Your task to perform on an android device: Empty the shopping cart on costco.com. Add logitech g502 to the cart on costco.com, then select checkout. Image 0: 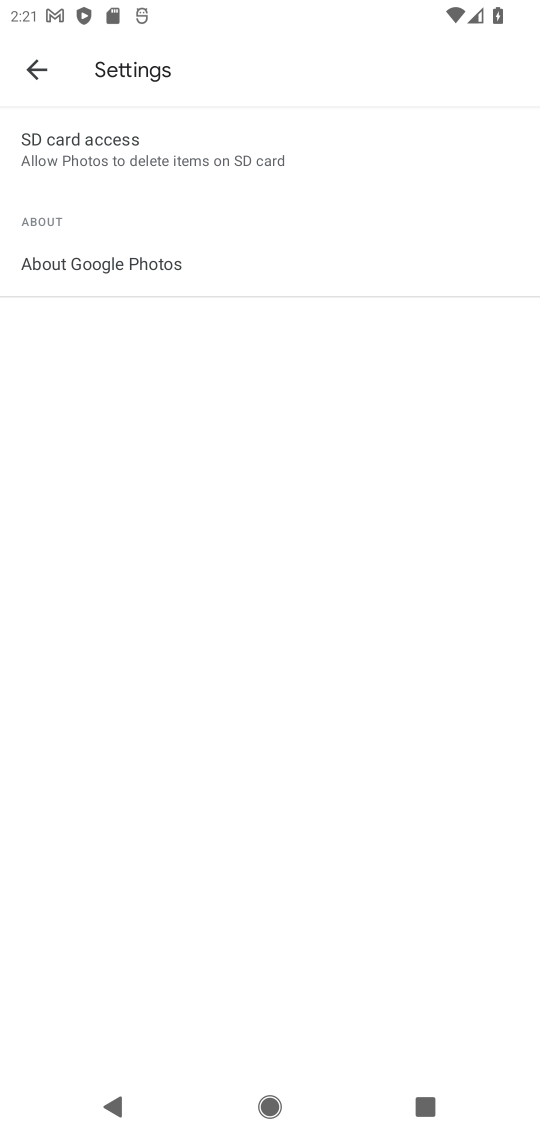
Step 0: press home button
Your task to perform on an android device: Empty the shopping cart on costco.com. Add logitech g502 to the cart on costco.com, then select checkout. Image 1: 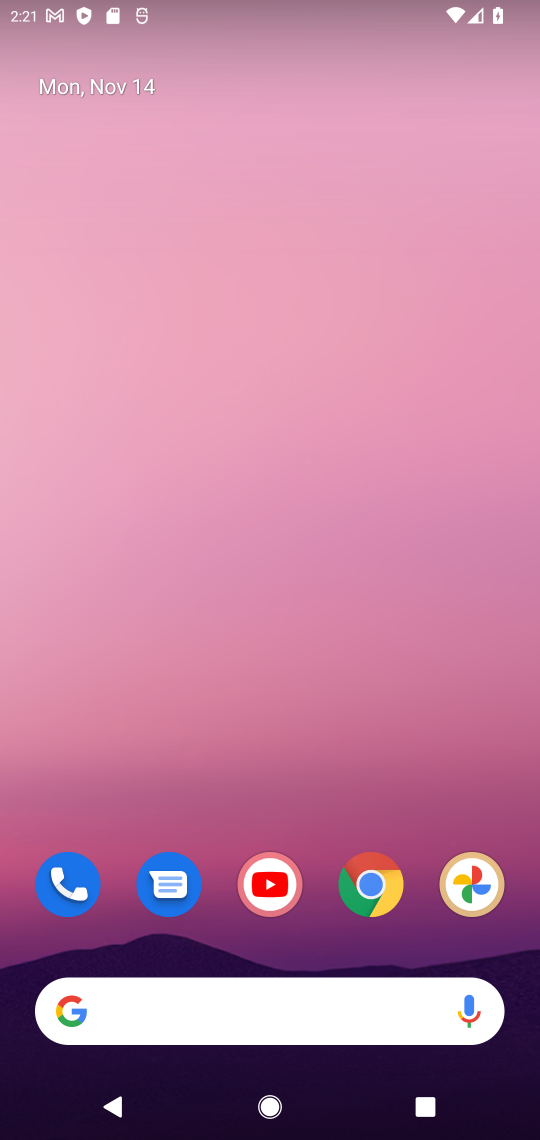
Step 1: click (394, 887)
Your task to perform on an android device: Empty the shopping cart on costco.com. Add logitech g502 to the cart on costco.com, then select checkout. Image 2: 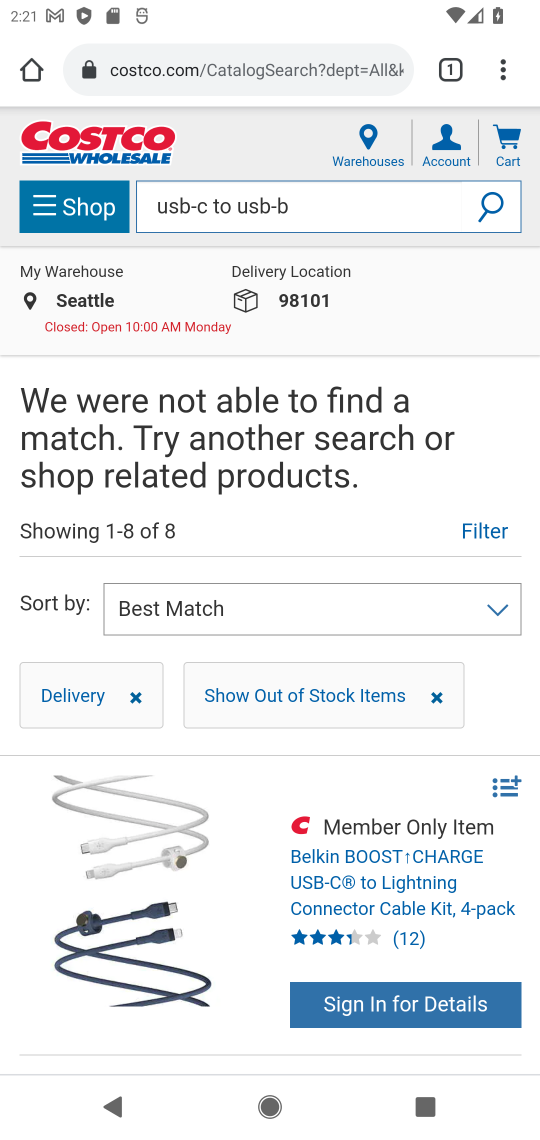
Step 2: click (518, 146)
Your task to perform on an android device: Empty the shopping cart on costco.com. Add logitech g502 to the cart on costco.com, then select checkout. Image 3: 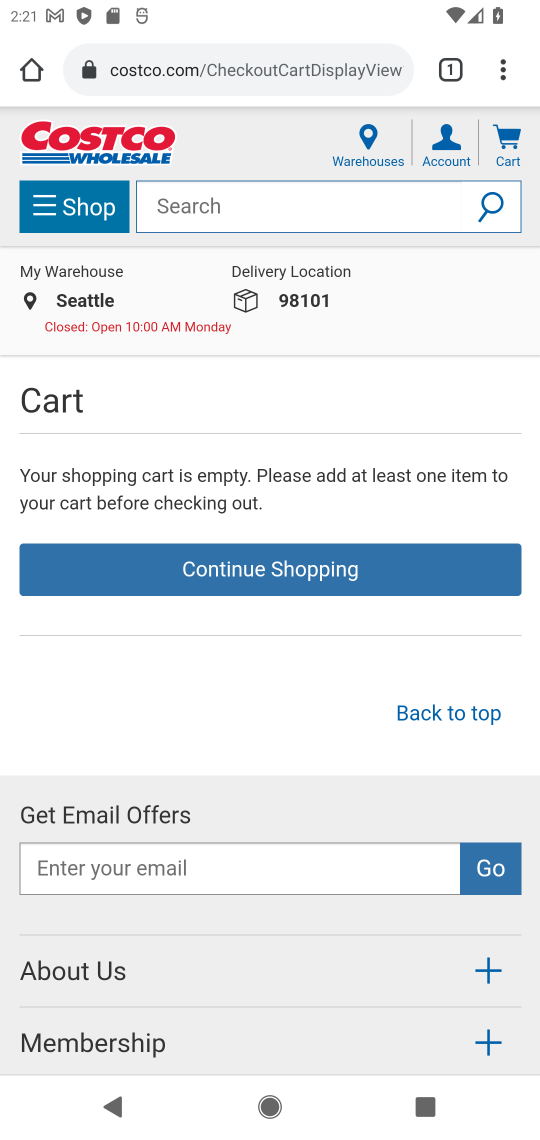
Step 3: click (414, 213)
Your task to perform on an android device: Empty the shopping cart on costco.com. Add logitech g502 to the cart on costco.com, then select checkout. Image 4: 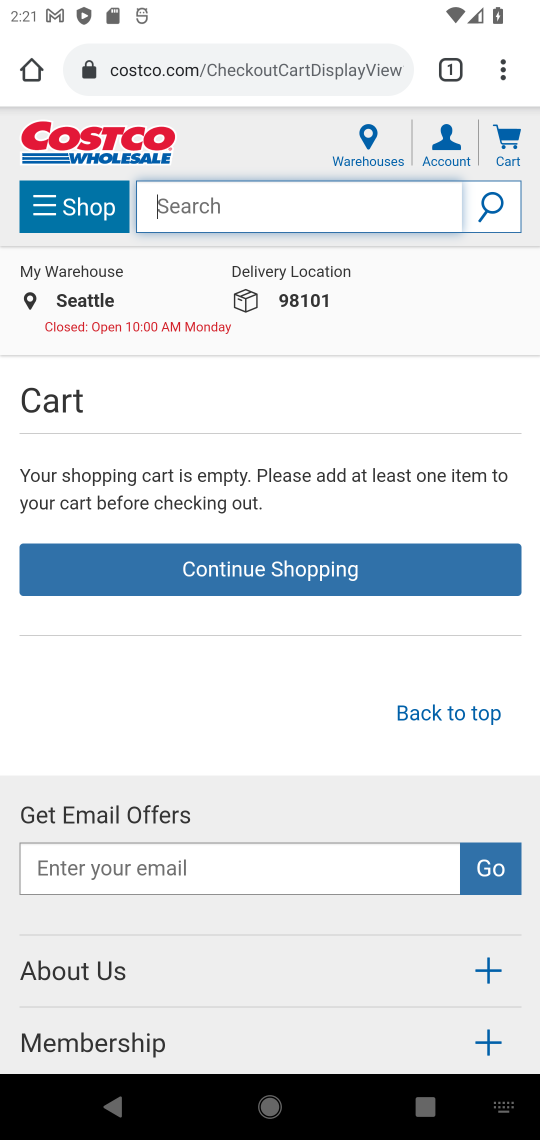
Step 4: press enter
Your task to perform on an android device: Empty the shopping cart on costco.com. Add logitech g502 to the cart on costco.com, then select checkout. Image 5: 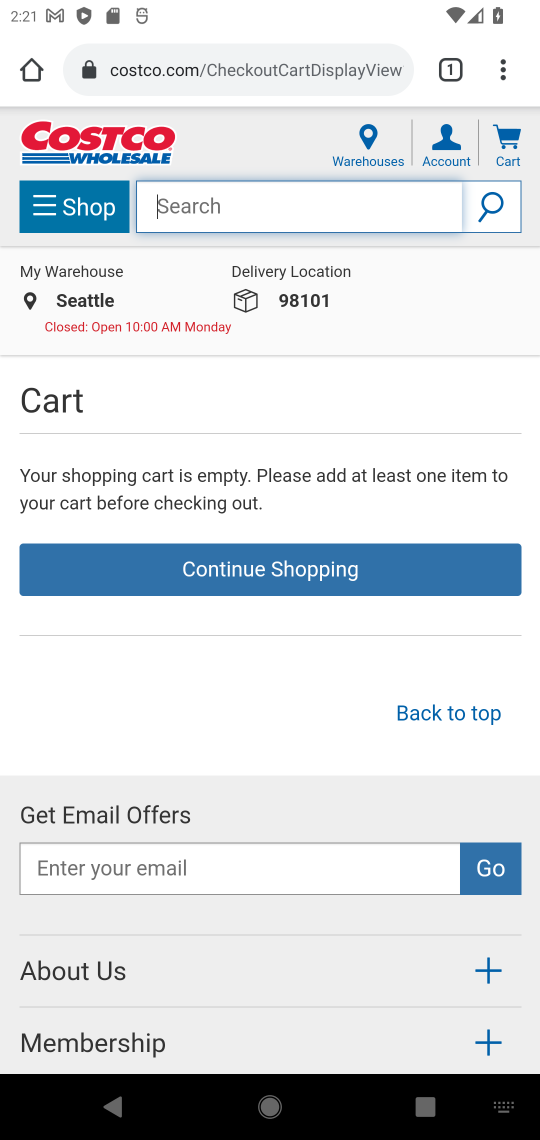
Step 5: type "logitech g502"
Your task to perform on an android device: Empty the shopping cart on costco.com. Add logitech g502 to the cart on costco.com, then select checkout. Image 6: 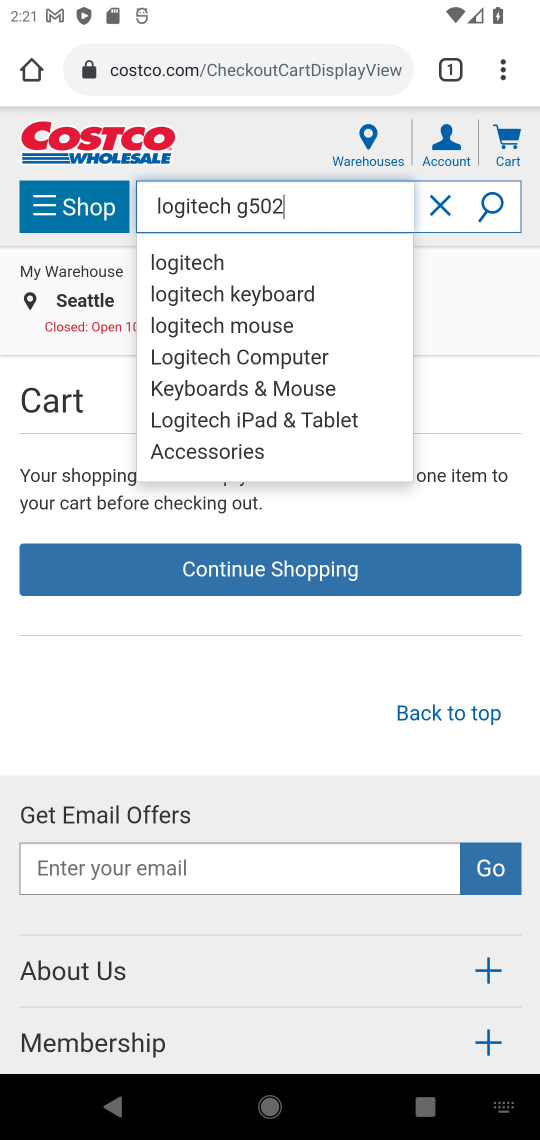
Step 6: click (496, 206)
Your task to perform on an android device: Empty the shopping cart on costco.com. Add logitech g502 to the cart on costco.com, then select checkout. Image 7: 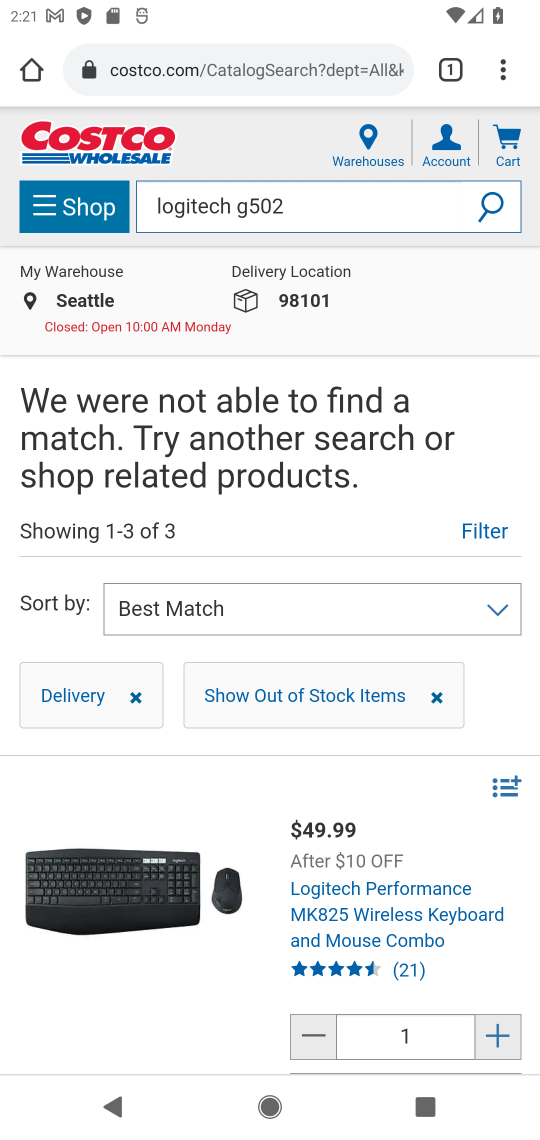
Step 7: task complete